Your task to perform on an android device: Open Google Maps and go to "Timeline" Image 0: 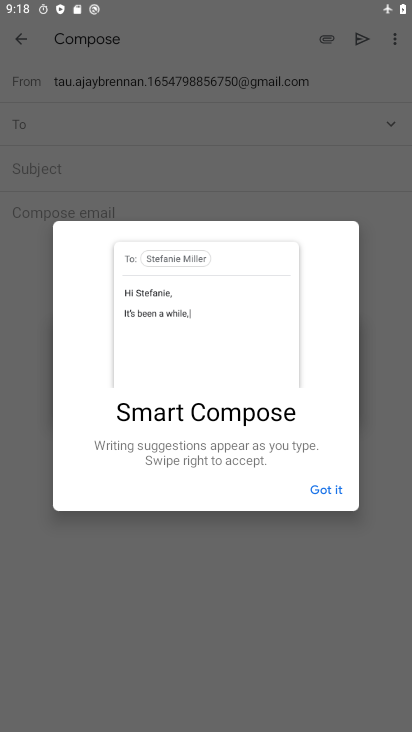
Step 0: press home button
Your task to perform on an android device: Open Google Maps and go to "Timeline" Image 1: 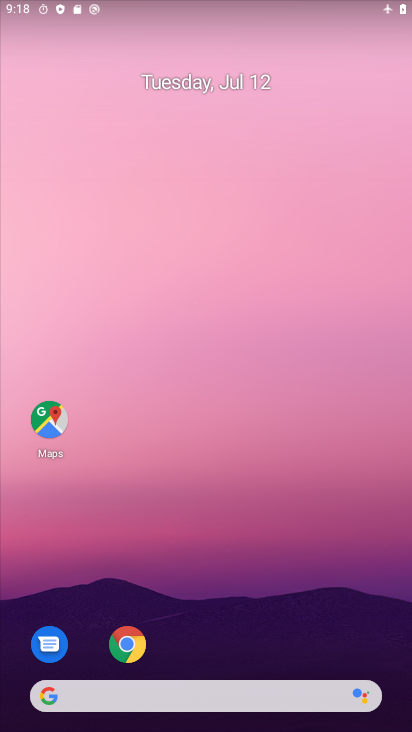
Step 1: click (32, 413)
Your task to perform on an android device: Open Google Maps and go to "Timeline" Image 2: 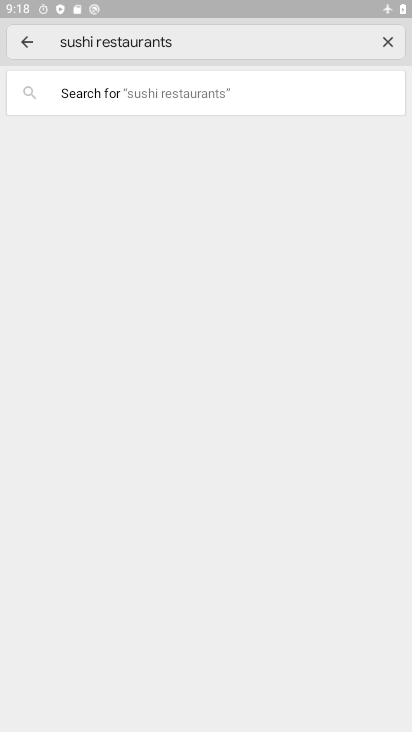
Step 2: click (25, 33)
Your task to perform on an android device: Open Google Maps and go to "Timeline" Image 3: 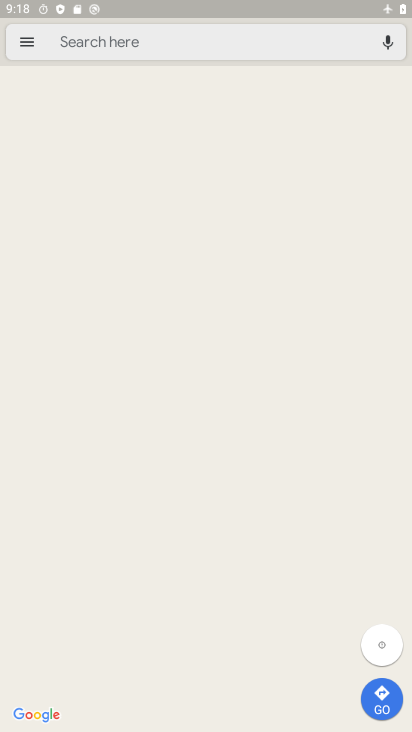
Step 3: click (26, 34)
Your task to perform on an android device: Open Google Maps and go to "Timeline" Image 4: 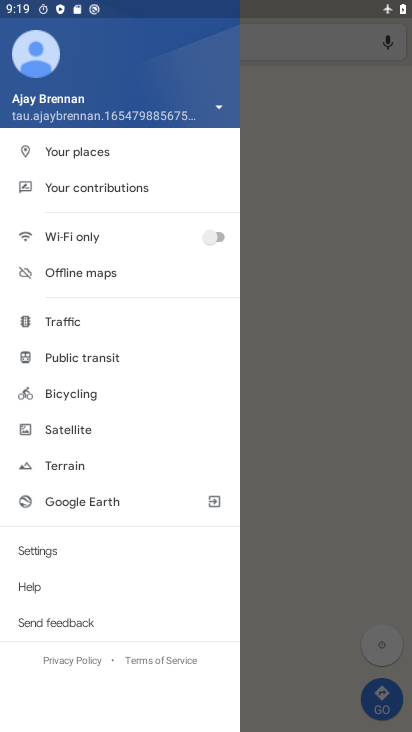
Step 4: task complete